Your task to perform on an android device: Open wifi settings Image 0: 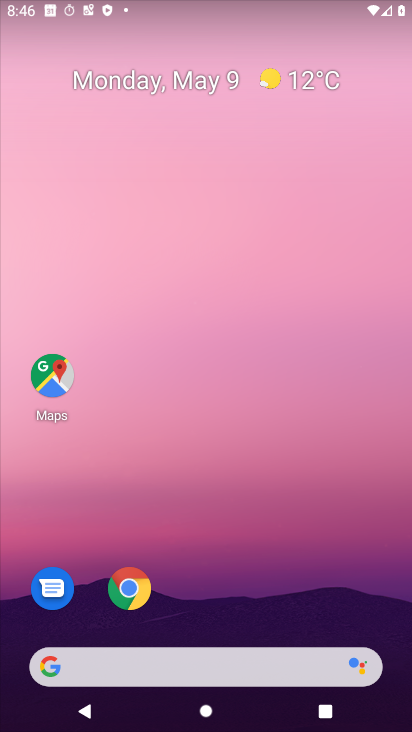
Step 0: drag from (168, 675) to (273, 174)
Your task to perform on an android device: Open wifi settings Image 1: 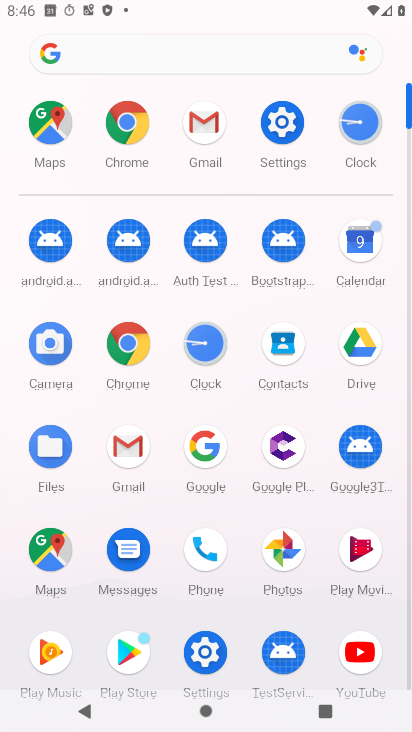
Step 1: click (278, 129)
Your task to perform on an android device: Open wifi settings Image 2: 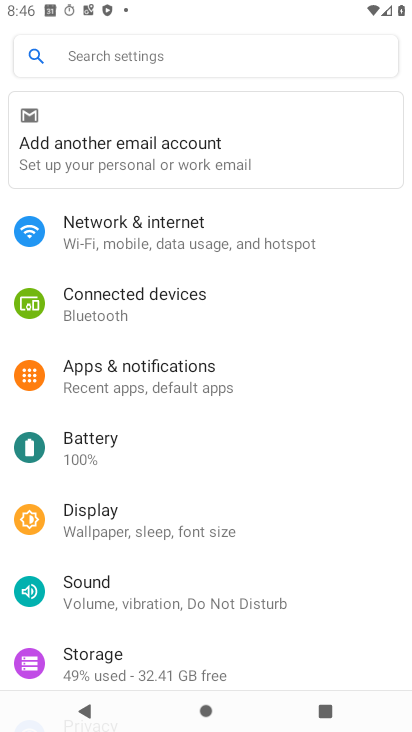
Step 2: click (137, 225)
Your task to perform on an android device: Open wifi settings Image 3: 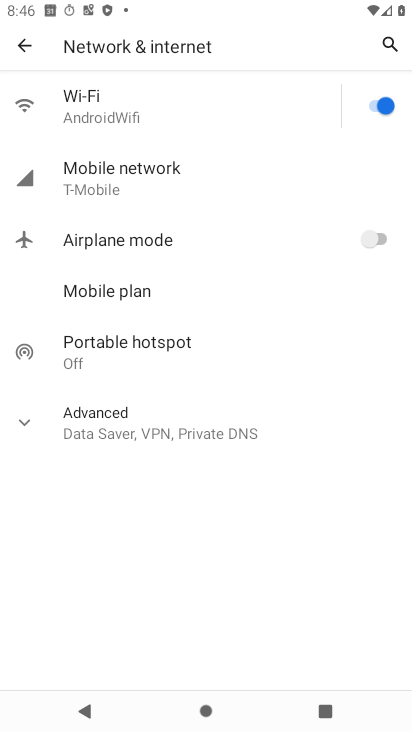
Step 3: click (102, 117)
Your task to perform on an android device: Open wifi settings Image 4: 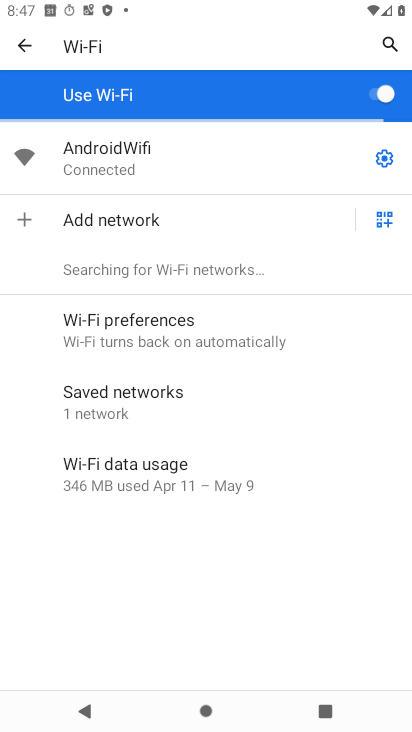
Step 4: task complete